Your task to perform on an android device: open app "ZOOM Cloud Meetings" (install if not already installed) Image 0: 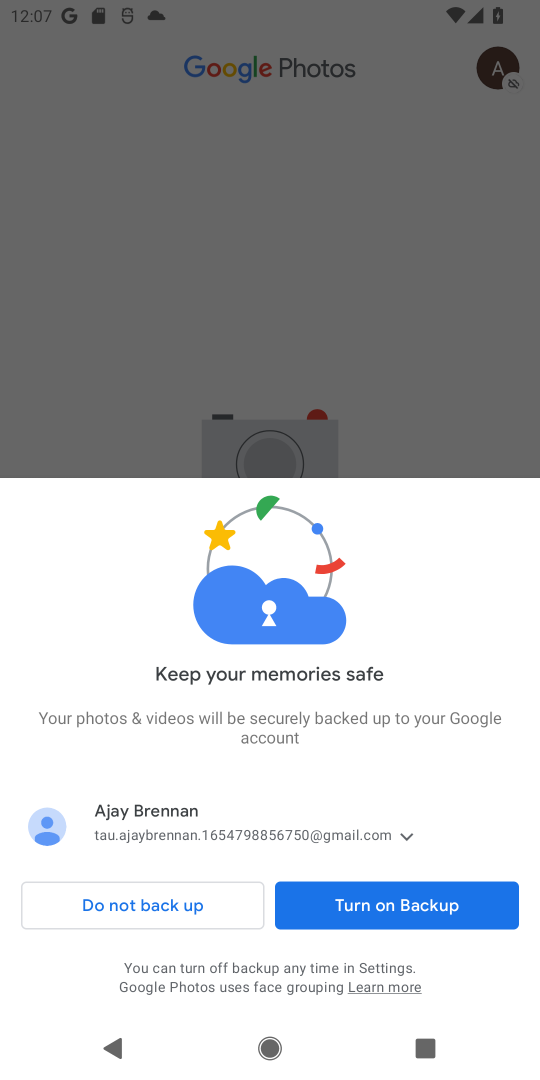
Step 0: press home button
Your task to perform on an android device: open app "ZOOM Cloud Meetings" (install if not already installed) Image 1: 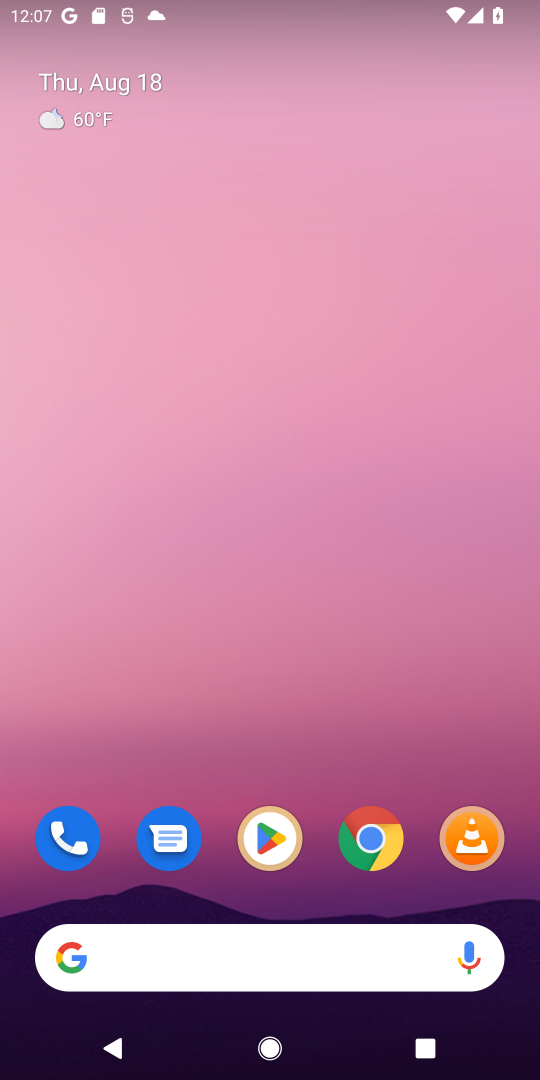
Step 1: click (260, 809)
Your task to perform on an android device: open app "ZOOM Cloud Meetings" (install if not already installed) Image 2: 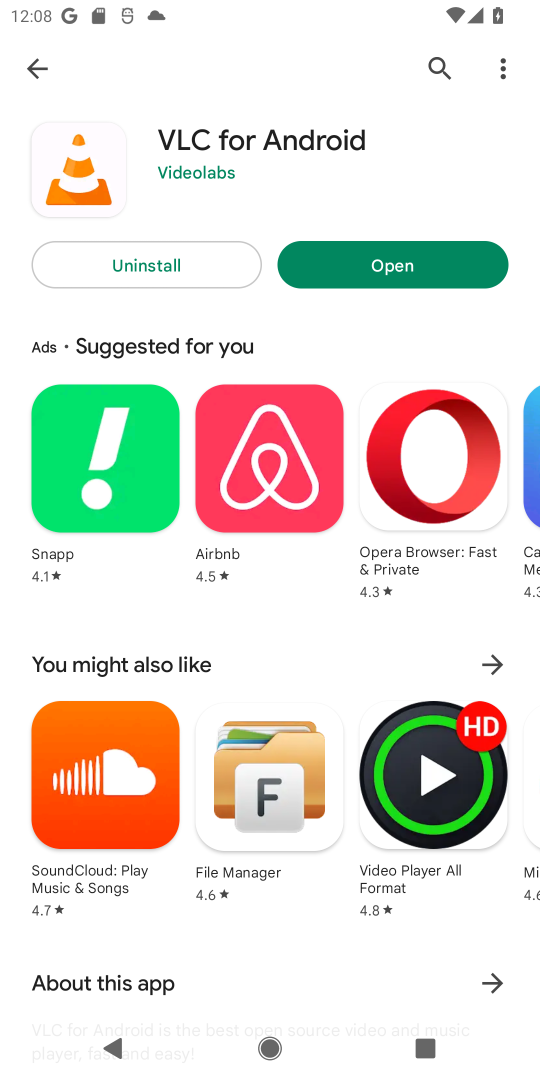
Step 2: click (438, 68)
Your task to perform on an android device: open app "ZOOM Cloud Meetings" (install if not already installed) Image 3: 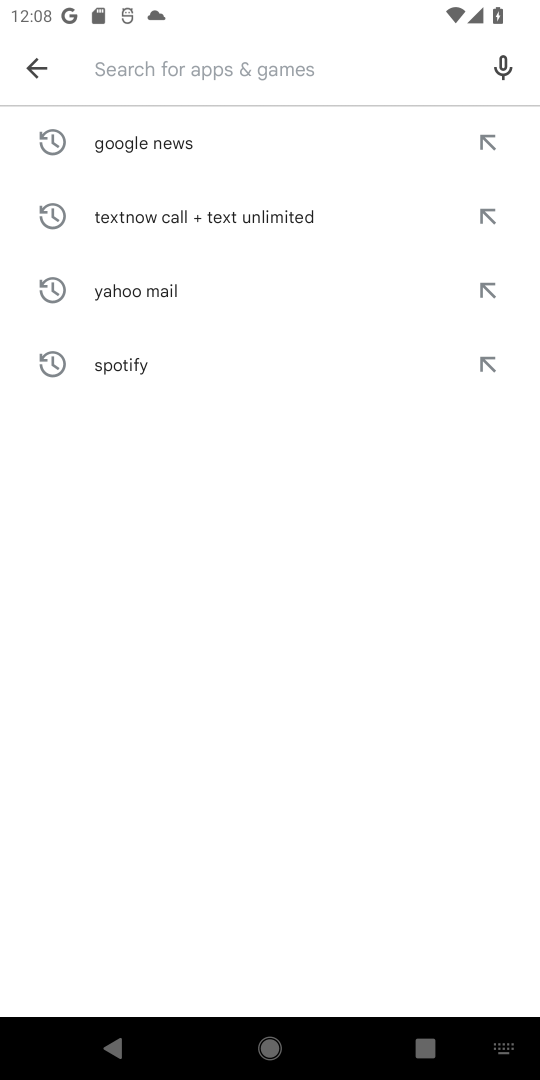
Step 3: type "ZOOM Cloud Meetings"
Your task to perform on an android device: open app "ZOOM Cloud Meetings" (install if not already installed) Image 4: 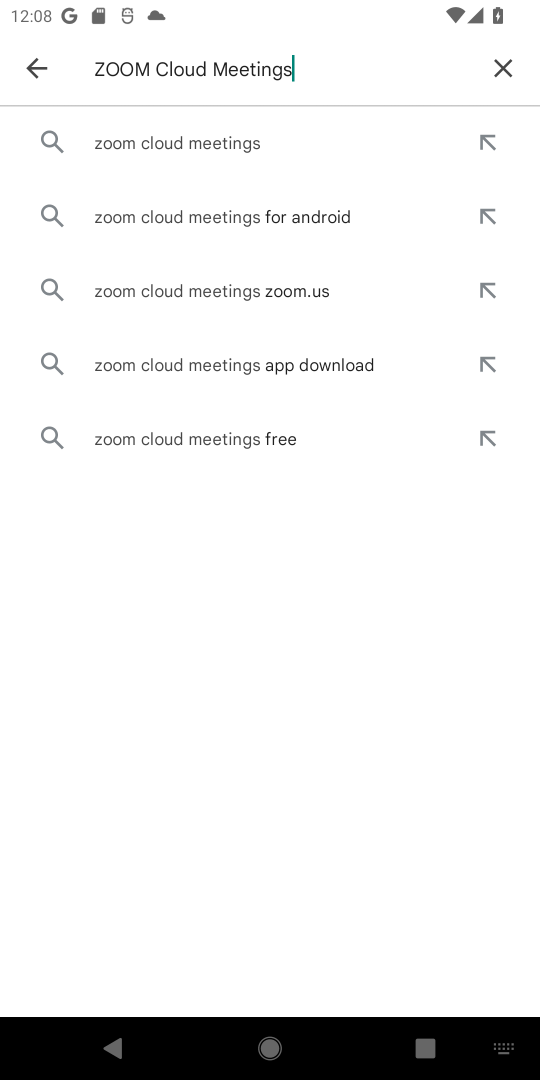
Step 4: click (308, 133)
Your task to perform on an android device: open app "ZOOM Cloud Meetings" (install if not already installed) Image 5: 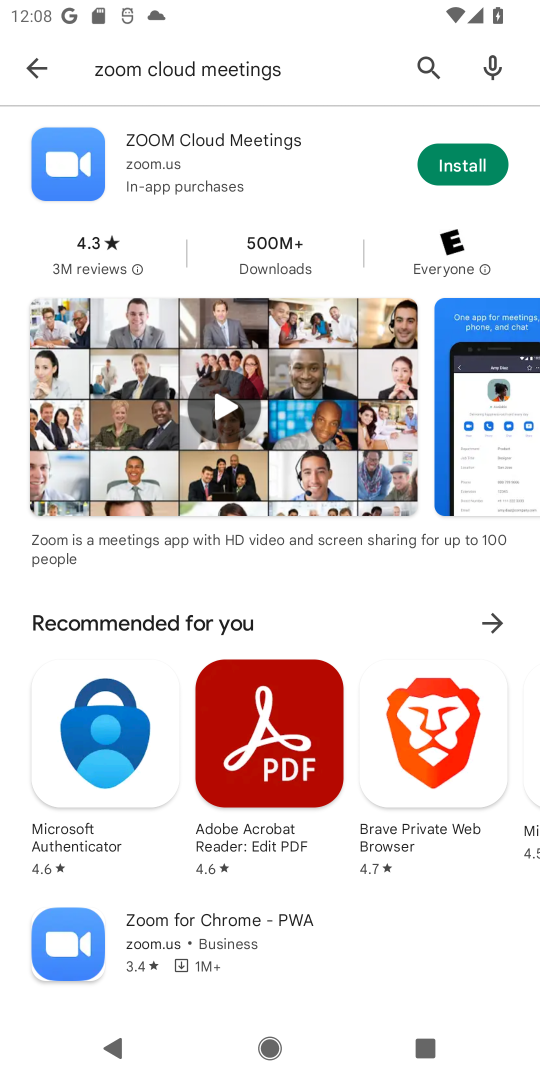
Step 5: click (449, 167)
Your task to perform on an android device: open app "ZOOM Cloud Meetings" (install if not already installed) Image 6: 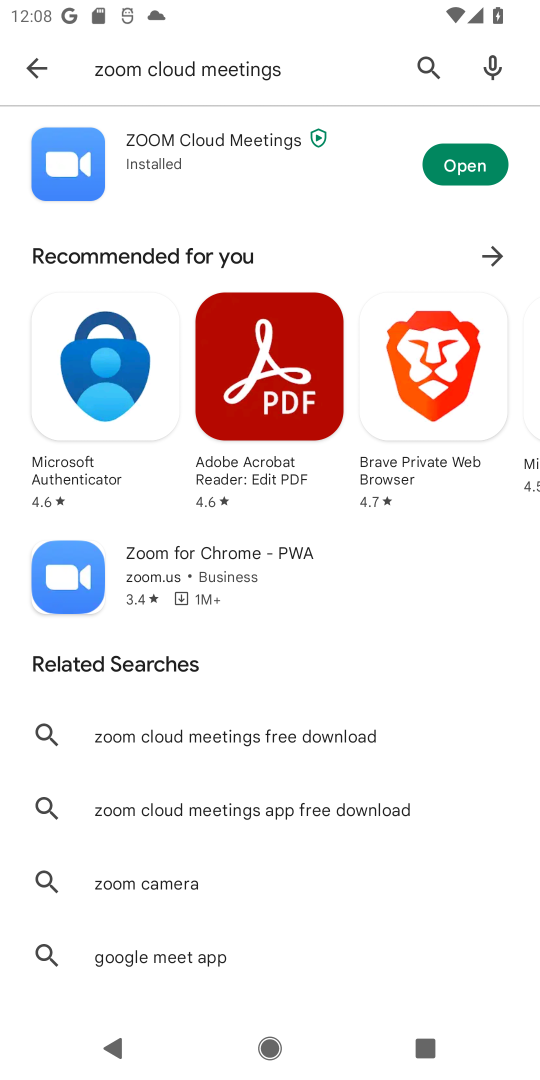
Step 6: click (456, 167)
Your task to perform on an android device: open app "ZOOM Cloud Meetings" (install if not already installed) Image 7: 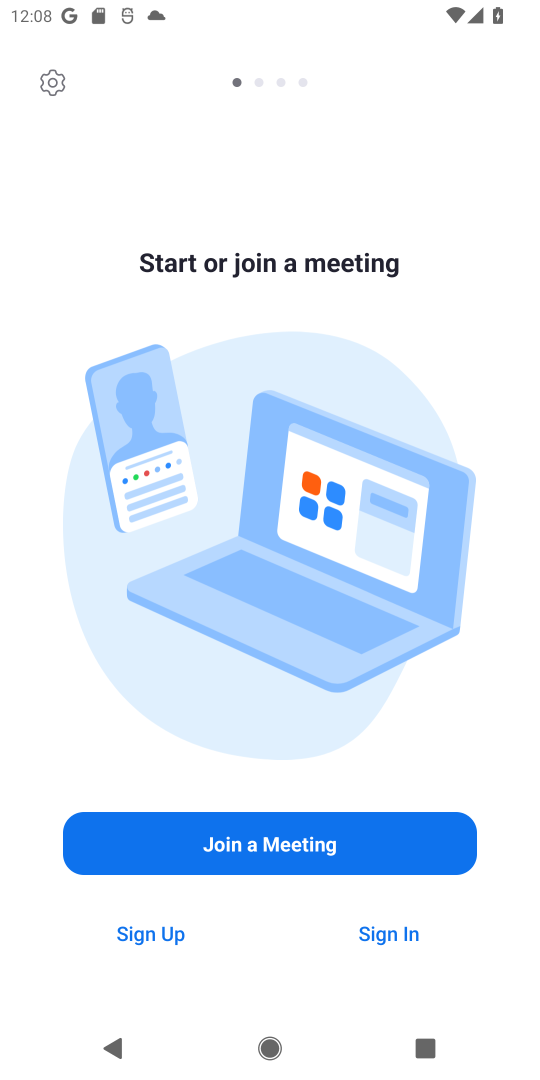
Step 7: task complete